Your task to perform on an android device: clear history in the chrome app Image 0: 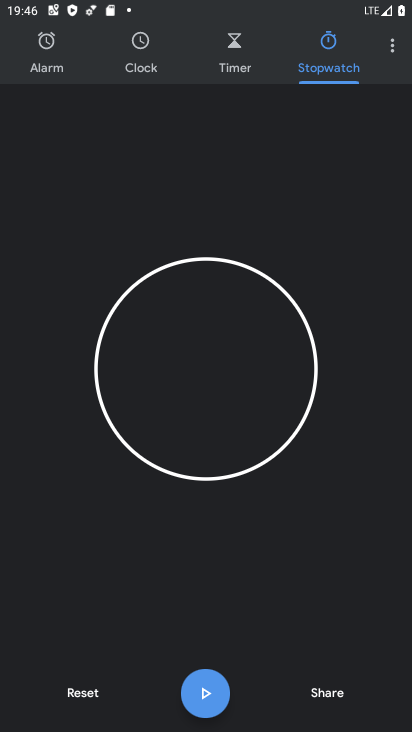
Step 0: press home button
Your task to perform on an android device: clear history in the chrome app Image 1: 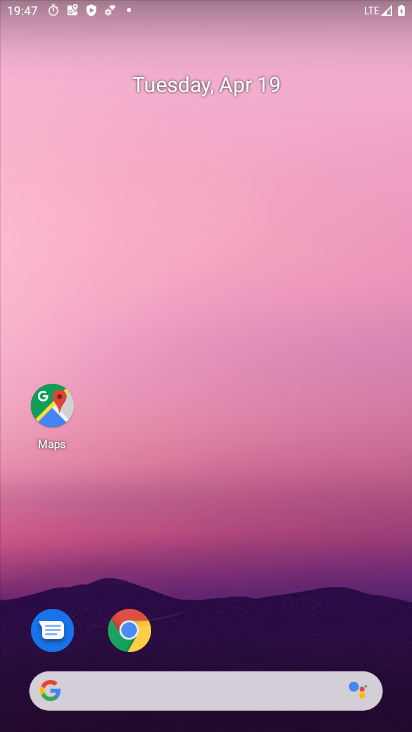
Step 1: click (139, 607)
Your task to perform on an android device: clear history in the chrome app Image 2: 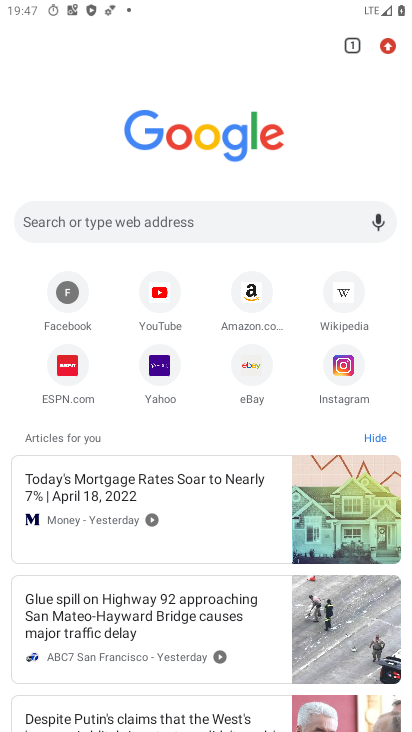
Step 2: click (378, 47)
Your task to perform on an android device: clear history in the chrome app Image 3: 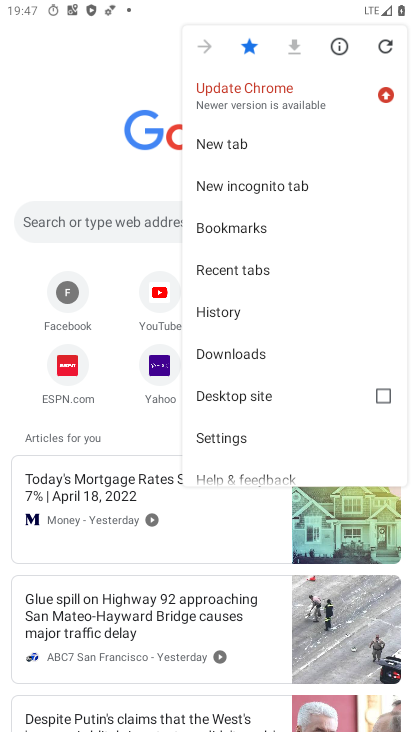
Step 3: click (215, 319)
Your task to perform on an android device: clear history in the chrome app Image 4: 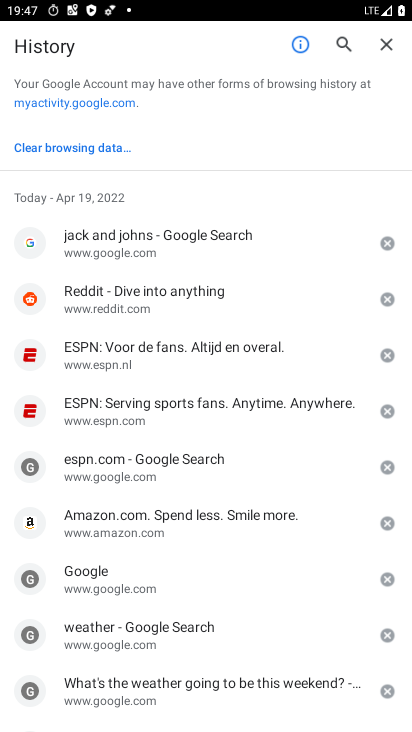
Step 4: click (87, 149)
Your task to perform on an android device: clear history in the chrome app Image 5: 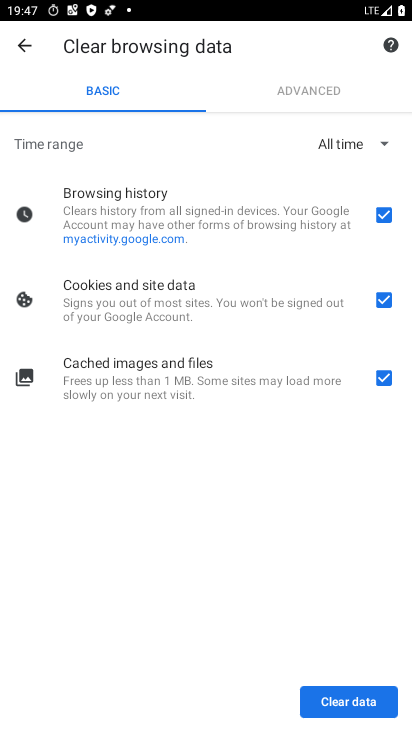
Step 5: click (337, 697)
Your task to perform on an android device: clear history in the chrome app Image 6: 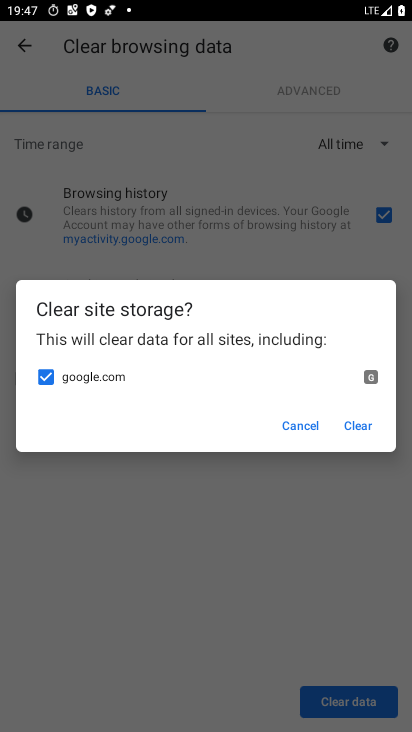
Step 6: click (363, 417)
Your task to perform on an android device: clear history in the chrome app Image 7: 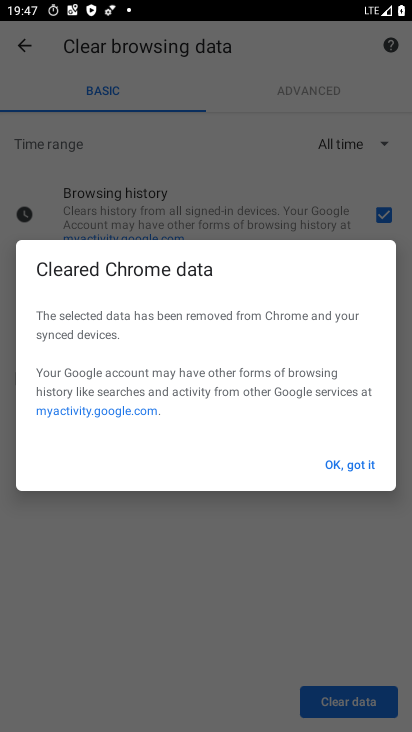
Step 7: click (337, 457)
Your task to perform on an android device: clear history in the chrome app Image 8: 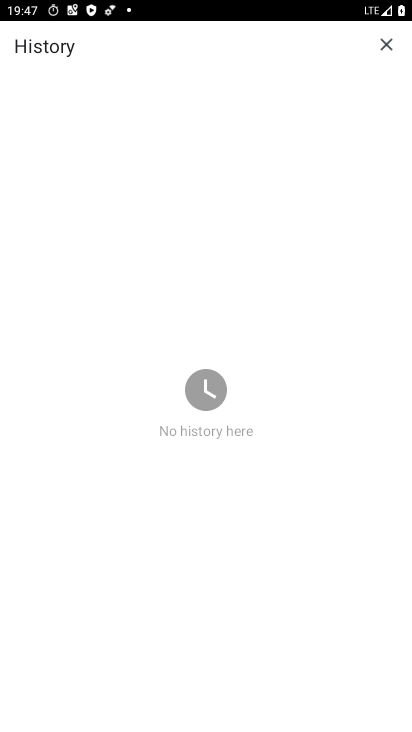
Step 8: task complete